Your task to perform on an android device: Go to settings Image 0: 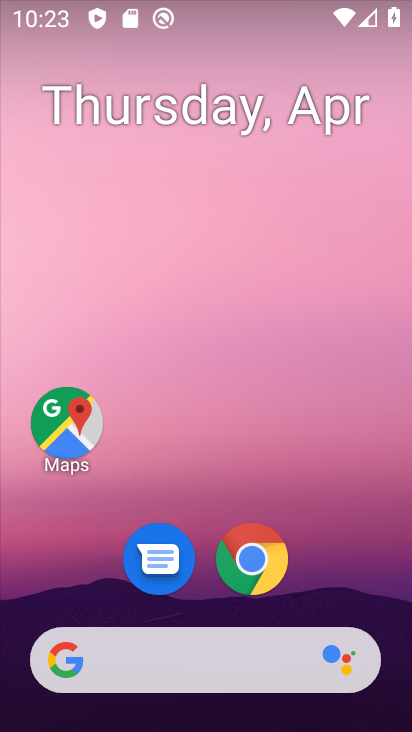
Step 0: drag from (212, 644) to (179, 248)
Your task to perform on an android device: Go to settings Image 1: 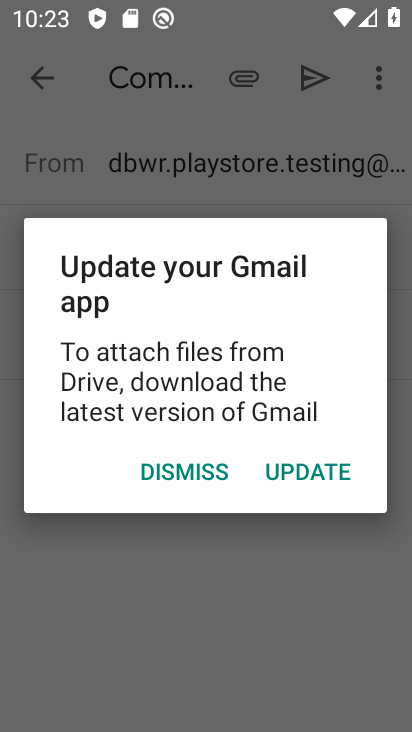
Step 1: press home button
Your task to perform on an android device: Go to settings Image 2: 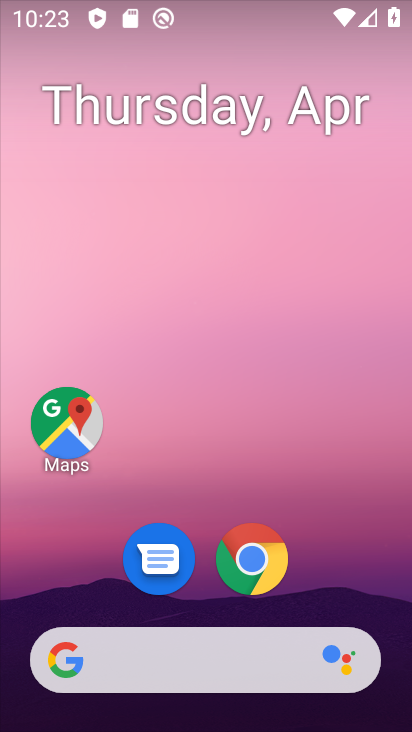
Step 2: drag from (263, 706) to (278, 147)
Your task to perform on an android device: Go to settings Image 3: 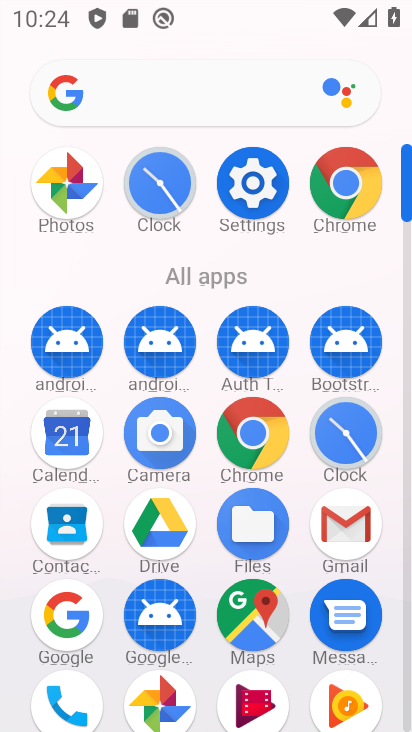
Step 3: click (273, 183)
Your task to perform on an android device: Go to settings Image 4: 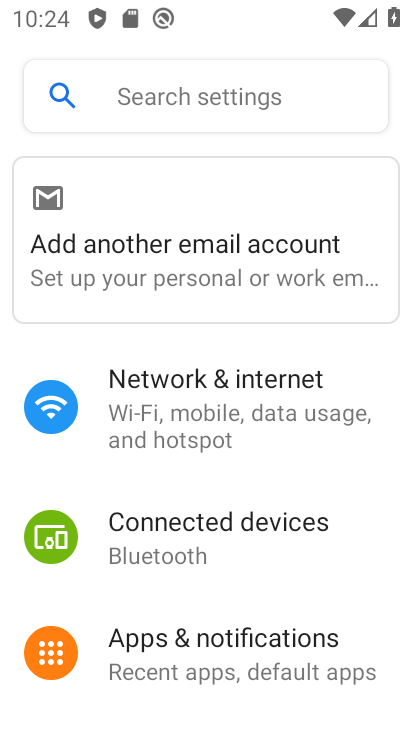
Step 4: task complete